Your task to perform on an android device: Open calendar and show me the third week of next month Image 0: 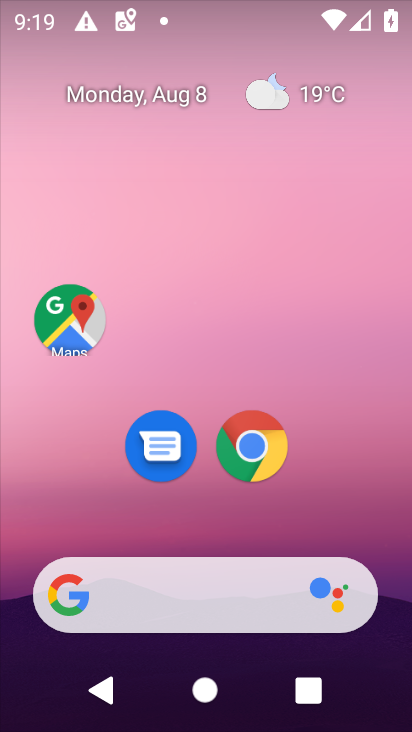
Step 0: drag from (388, 521) to (383, 119)
Your task to perform on an android device: Open calendar and show me the third week of next month Image 1: 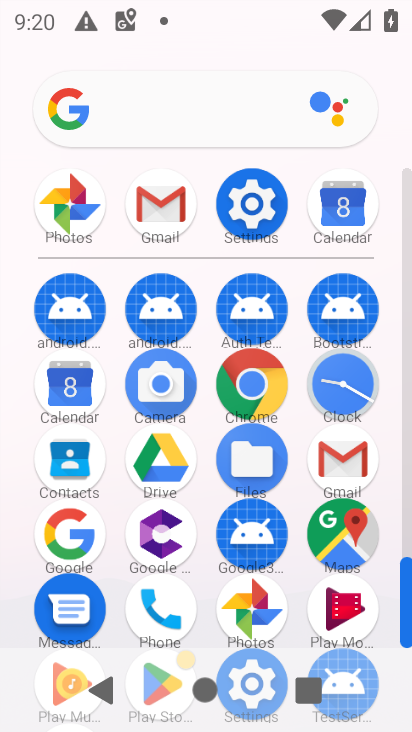
Step 1: click (68, 389)
Your task to perform on an android device: Open calendar and show me the third week of next month Image 2: 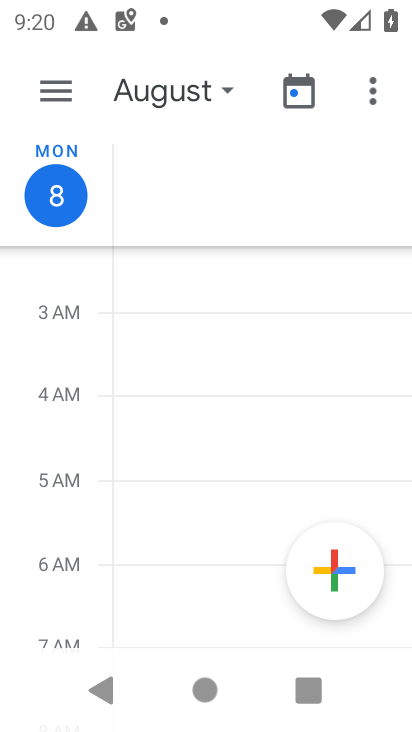
Step 2: click (58, 81)
Your task to perform on an android device: Open calendar and show me the third week of next month Image 3: 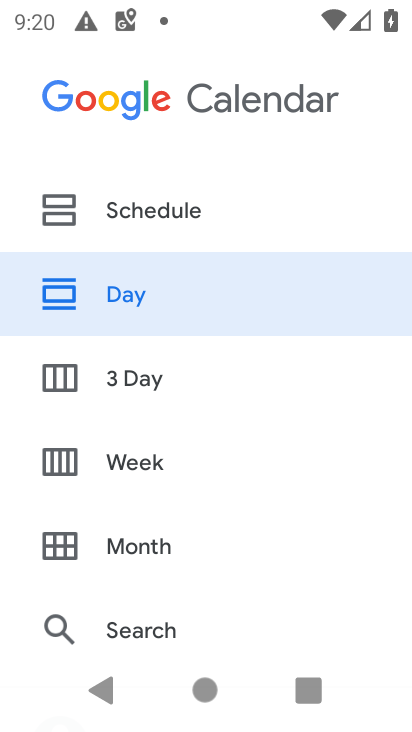
Step 3: click (132, 455)
Your task to perform on an android device: Open calendar and show me the third week of next month Image 4: 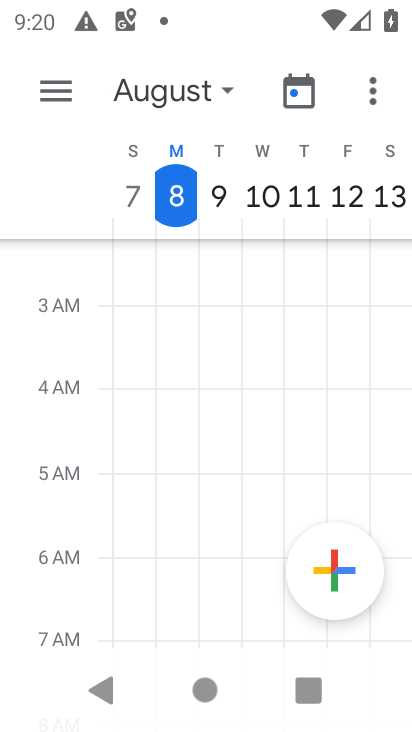
Step 4: click (231, 93)
Your task to perform on an android device: Open calendar and show me the third week of next month Image 5: 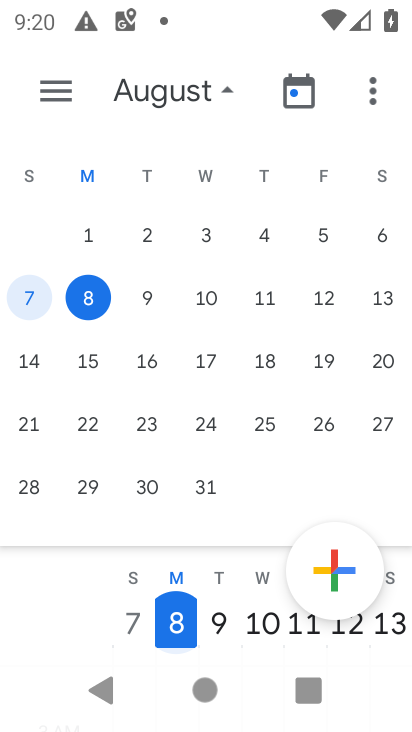
Step 5: drag from (375, 372) to (137, 321)
Your task to perform on an android device: Open calendar and show me the third week of next month Image 6: 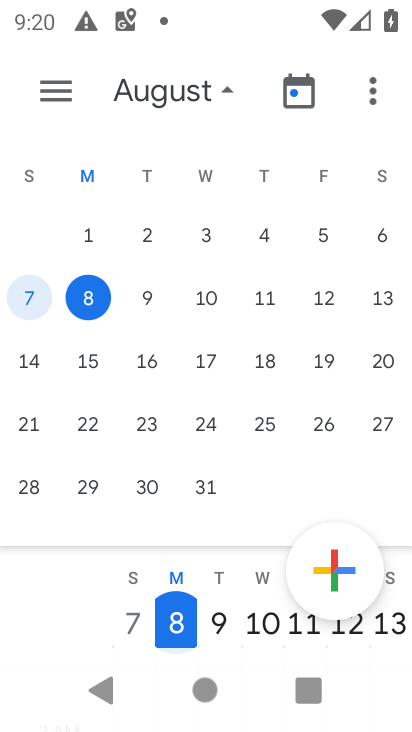
Step 6: drag from (368, 356) to (0, 316)
Your task to perform on an android device: Open calendar and show me the third week of next month Image 7: 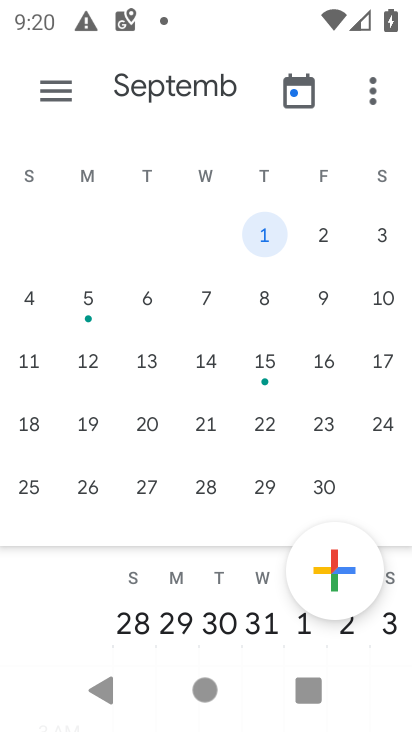
Step 7: click (30, 423)
Your task to perform on an android device: Open calendar and show me the third week of next month Image 8: 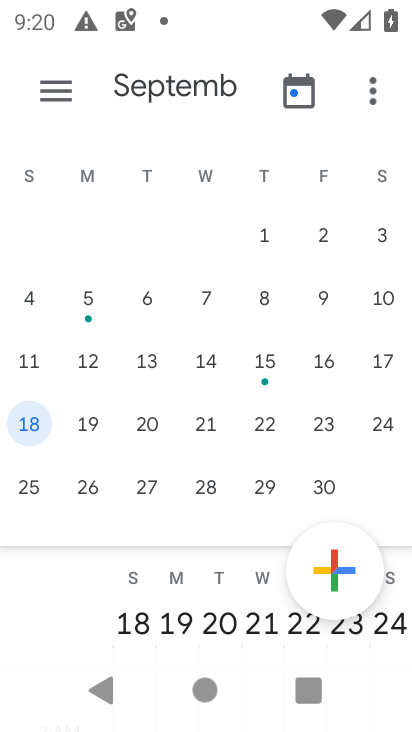
Step 8: task complete